Your task to perform on an android device: Go to Maps Image 0: 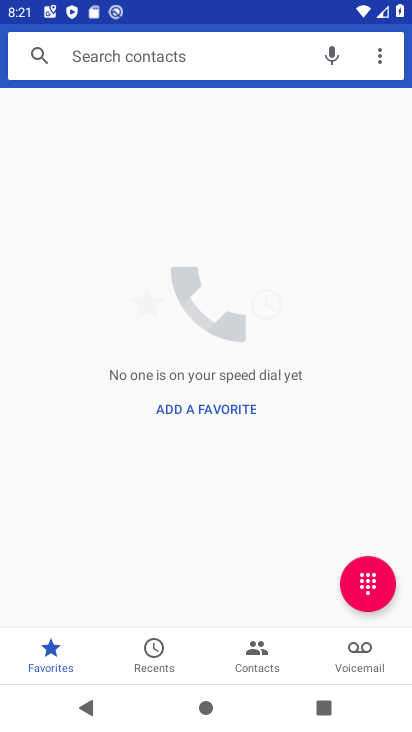
Step 0: press home button
Your task to perform on an android device: Go to Maps Image 1: 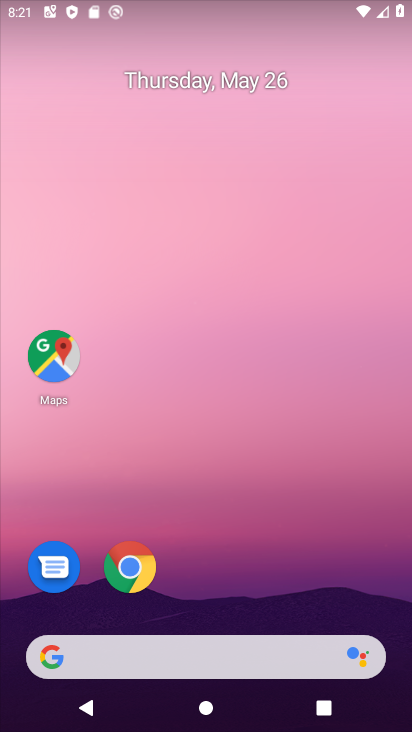
Step 1: click (38, 373)
Your task to perform on an android device: Go to Maps Image 2: 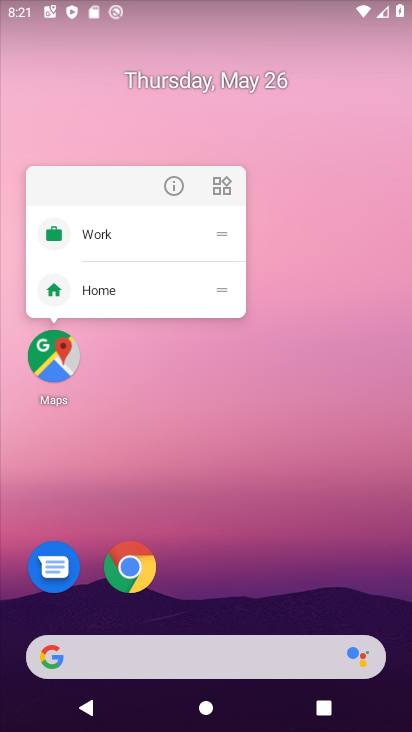
Step 2: click (62, 359)
Your task to perform on an android device: Go to Maps Image 3: 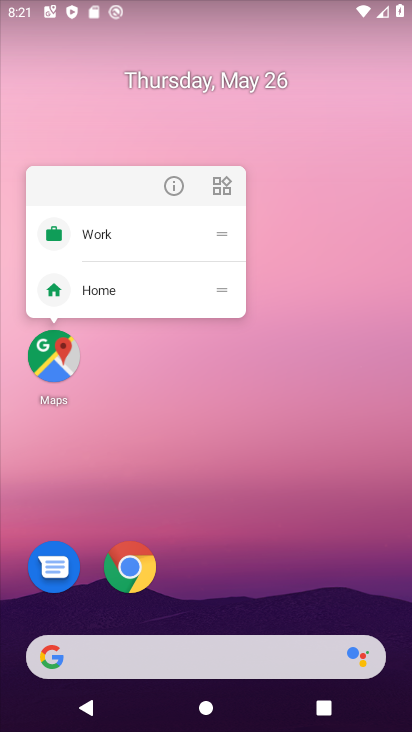
Step 3: click (52, 352)
Your task to perform on an android device: Go to Maps Image 4: 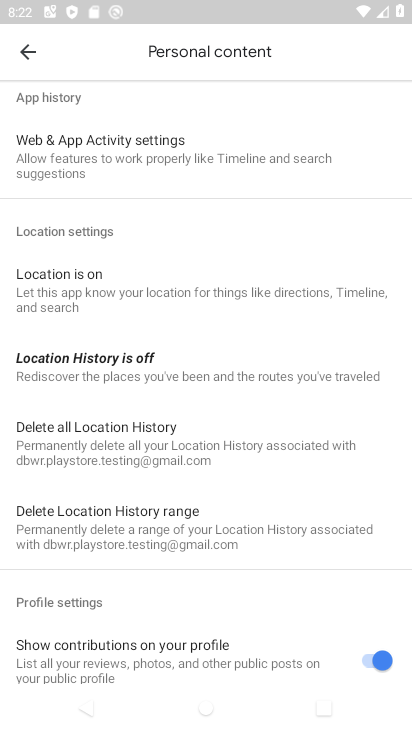
Step 4: click (28, 49)
Your task to perform on an android device: Go to Maps Image 5: 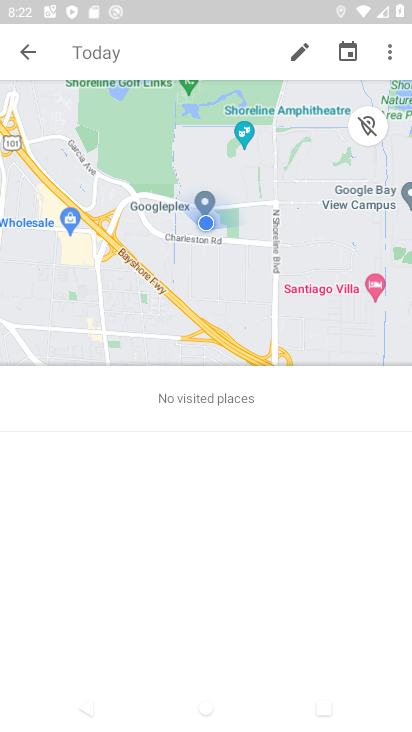
Step 5: click (28, 49)
Your task to perform on an android device: Go to Maps Image 6: 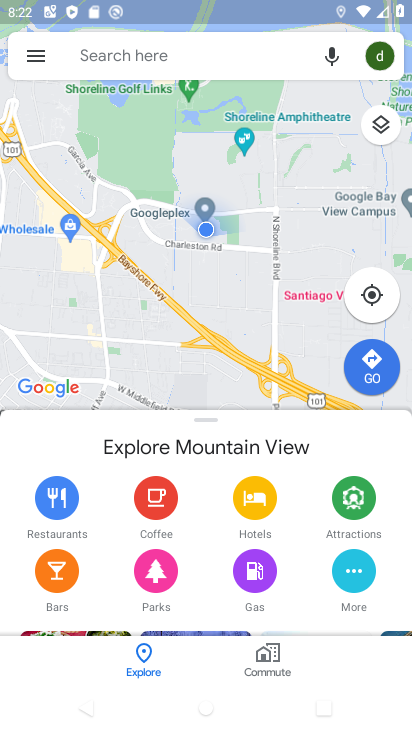
Step 6: task complete